Your task to perform on an android device: delete location history Image 0: 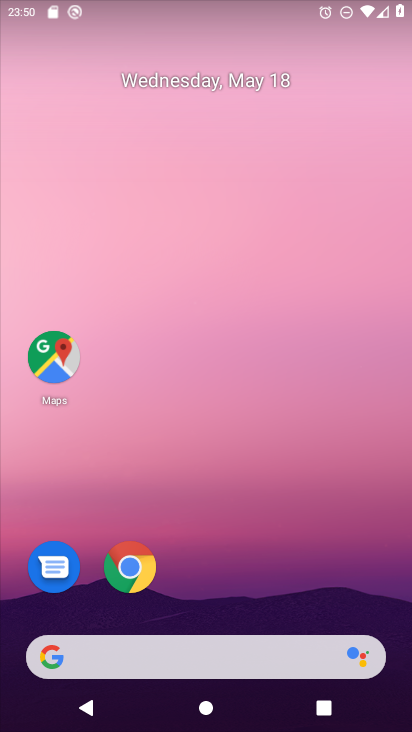
Step 0: drag from (277, 665) to (262, 213)
Your task to perform on an android device: delete location history Image 1: 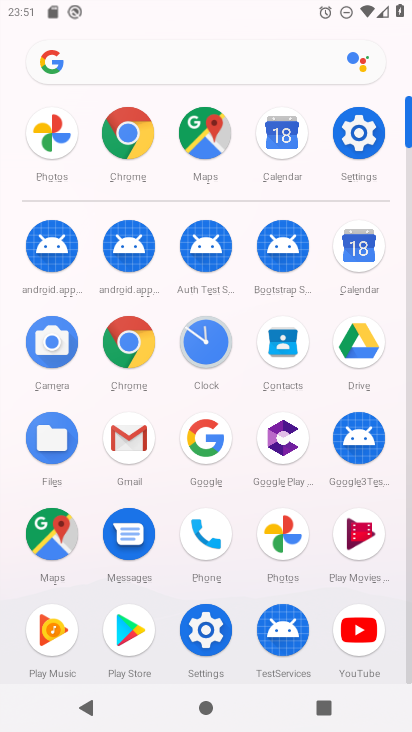
Step 1: click (362, 125)
Your task to perform on an android device: delete location history Image 2: 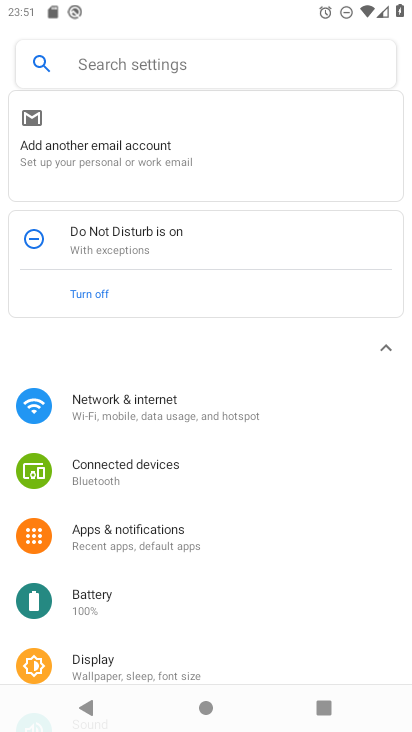
Step 2: click (142, 49)
Your task to perform on an android device: delete location history Image 3: 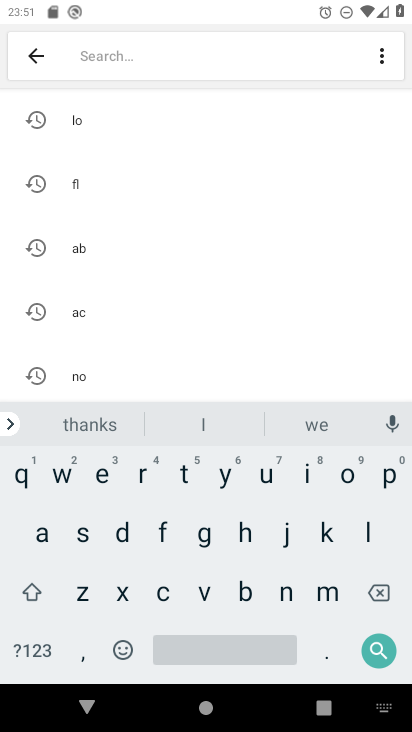
Step 3: click (153, 118)
Your task to perform on an android device: delete location history Image 4: 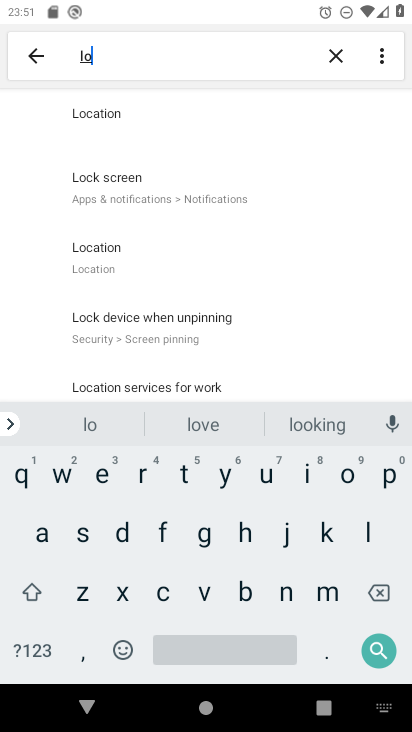
Step 4: click (153, 248)
Your task to perform on an android device: delete location history Image 5: 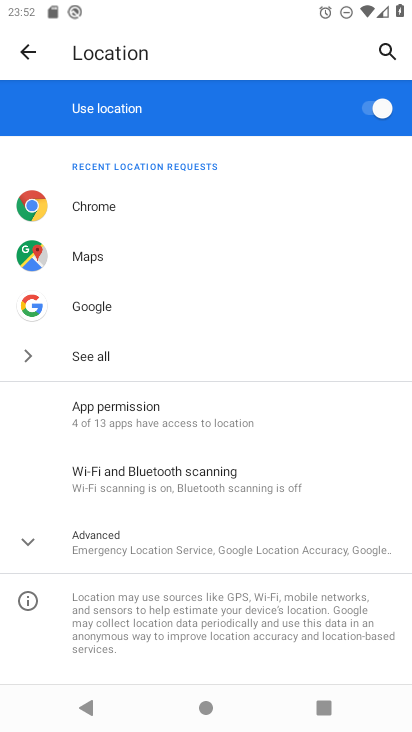
Step 5: click (60, 531)
Your task to perform on an android device: delete location history Image 6: 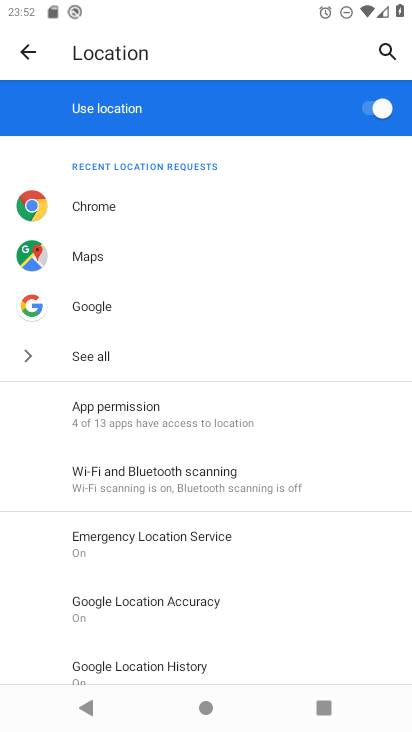
Step 6: click (172, 661)
Your task to perform on an android device: delete location history Image 7: 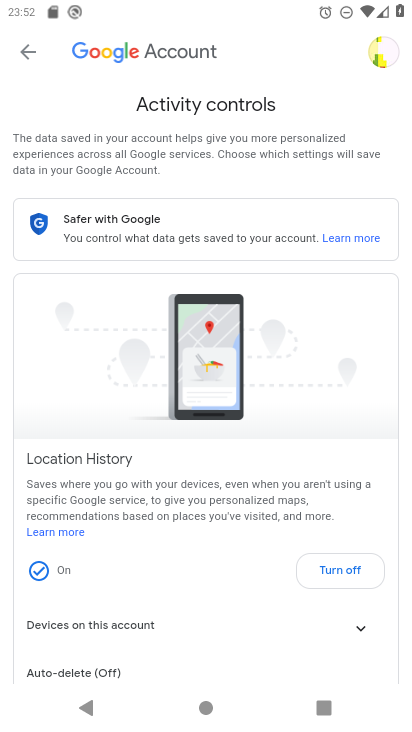
Step 7: task complete